Your task to perform on an android device: set the stopwatch Image 0: 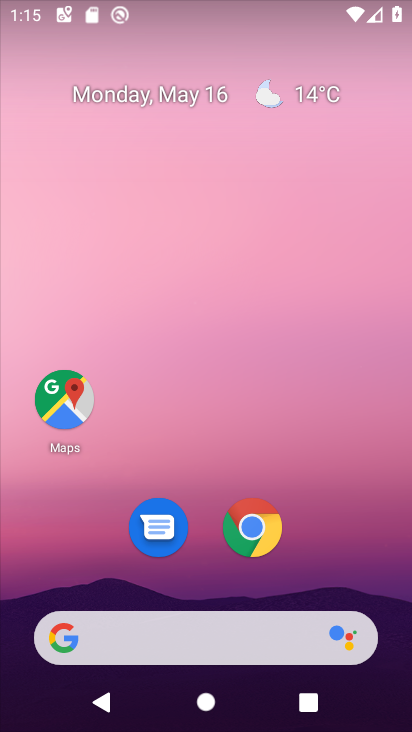
Step 0: drag from (194, 589) to (230, 157)
Your task to perform on an android device: set the stopwatch Image 1: 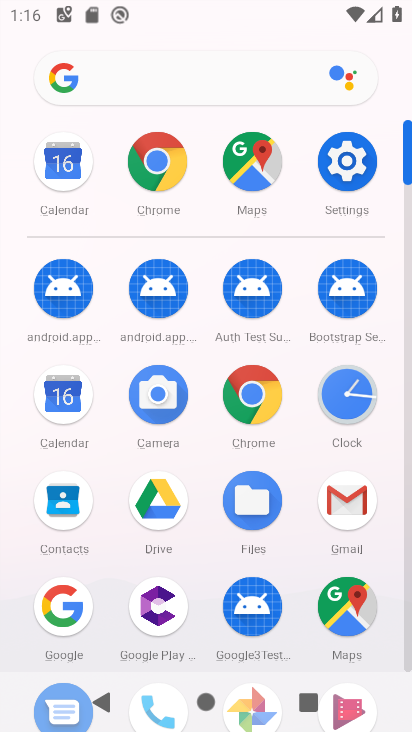
Step 1: click (348, 405)
Your task to perform on an android device: set the stopwatch Image 2: 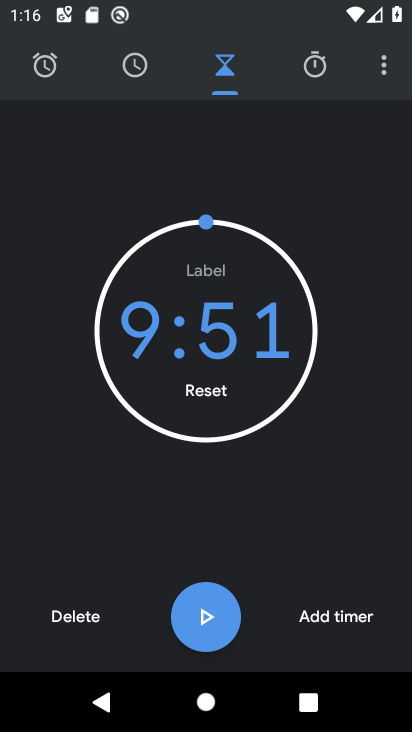
Step 2: click (312, 63)
Your task to perform on an android device: set the stopwatch Image 3: 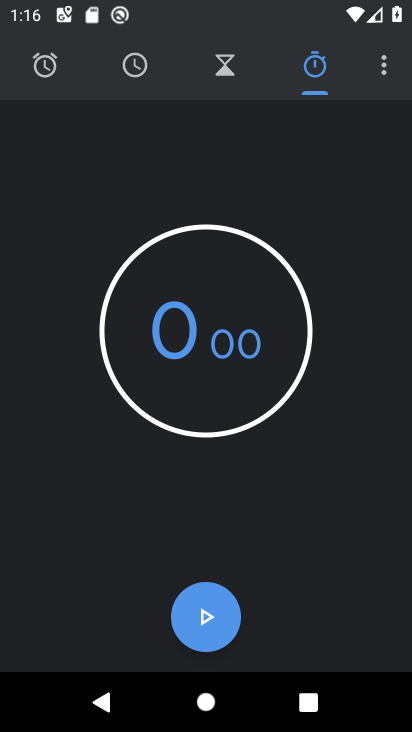
Step 3: click (202, 619)
Your task to perform on an android device: set the stopwatch Image 4: 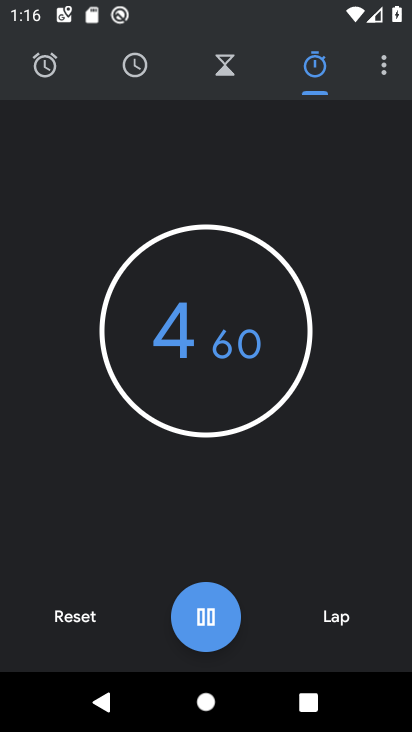
Step 4: task complete